Your task to perform on an android device: open chrome privacy settings Image 0: 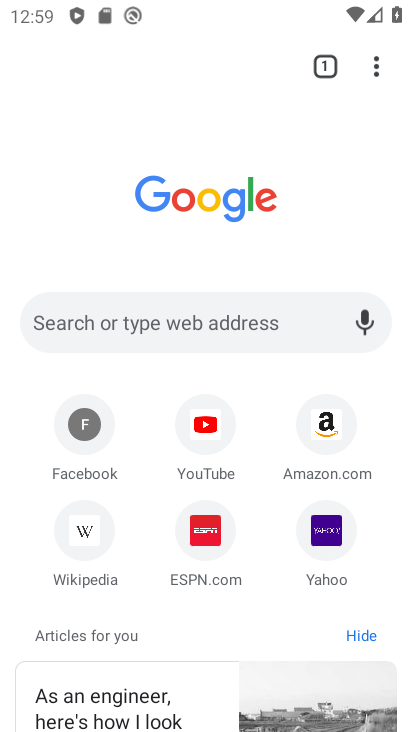
Step 0: drag from (372, 68) to (157, 562)
Your task to perform on an android device: open chrome privacy settings Image 1: 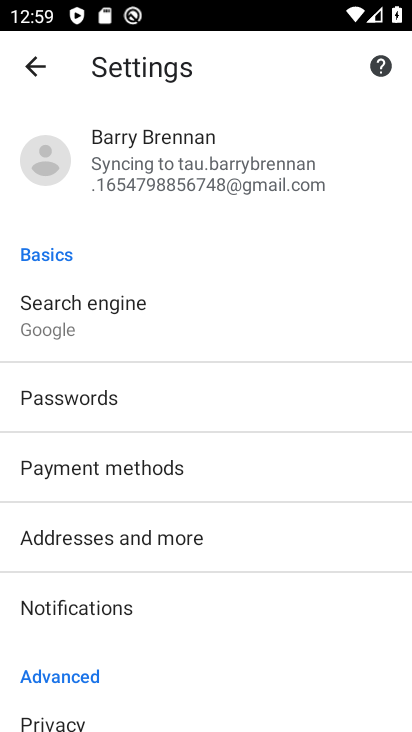
Step 1: drag from (92, 628) to (67, 343)
Your task to perform on an android device: open chrome privacy settings Image 2: 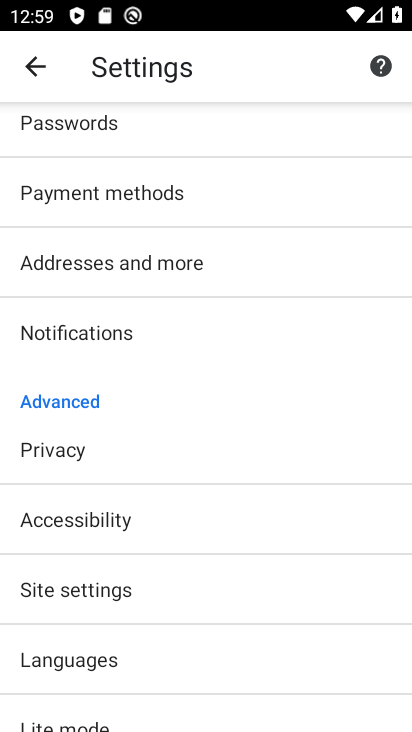
Step 2: click (66, 448)
Your task to perform on an android device: open chrome privacy settings Image 3: 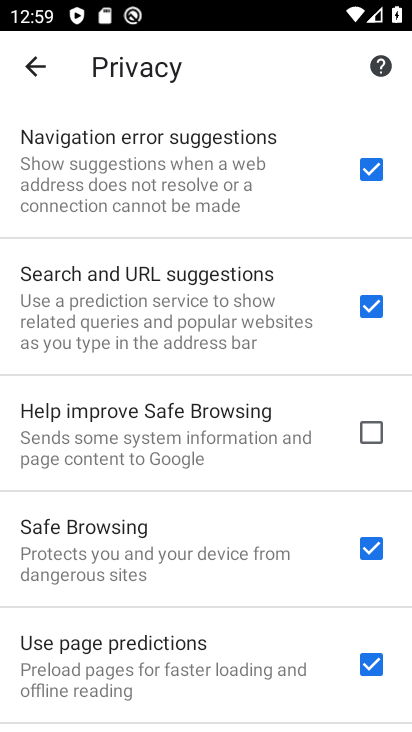
Step 3: task complete